Your task to perform on an android device: Open accessibility settings Image 0: 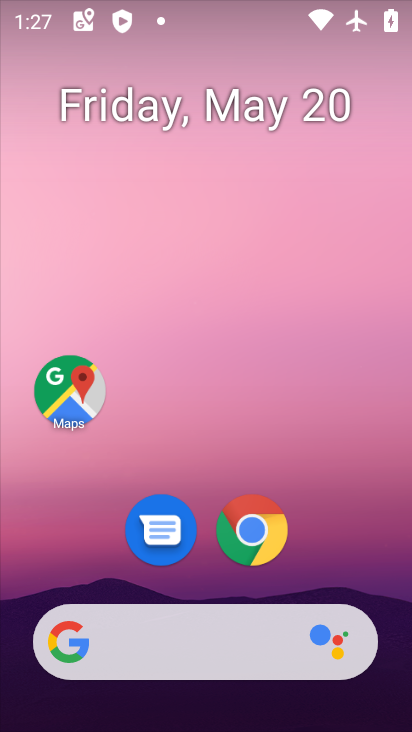
Step 0: drag from (193, 706) to (293, 129)
Your task to perform on an android device: Open accessibility settings Image 1: 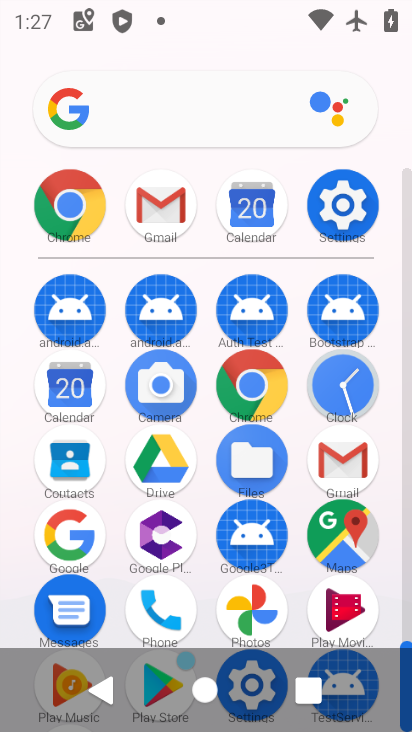
Step 1: click (365, 201)
Your task to perform on an android device: Open accessibility settings Image 2: 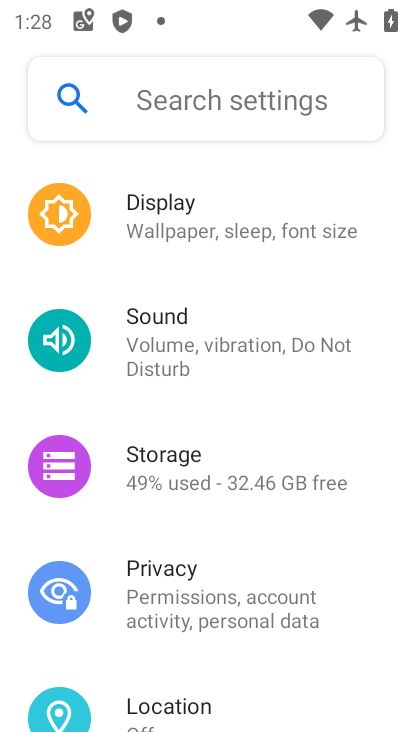
Step 2: drag from (238, 588) to (197, 80)
Your task to perform on an android device: Open accessibility settings Image 3: 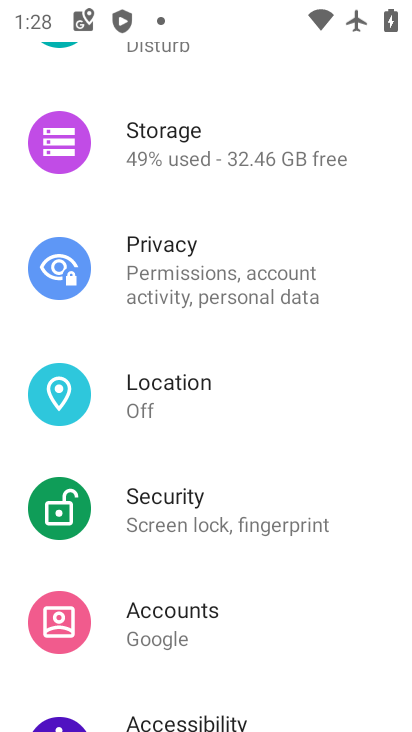
Step 3: drag from (247, 605) to (311, 125)
Your task to perform on an android device: Open accessibility settings Image 4: 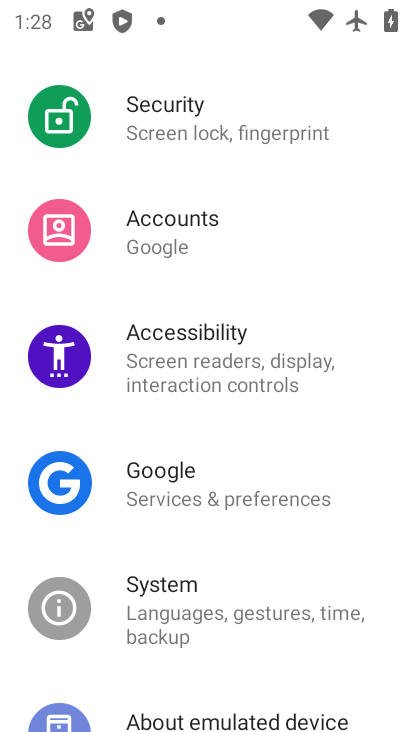
Step 4: drag from (278, 651) to (276, 111)
Your task to perform on an android device: Open accessibility settings Image 5: 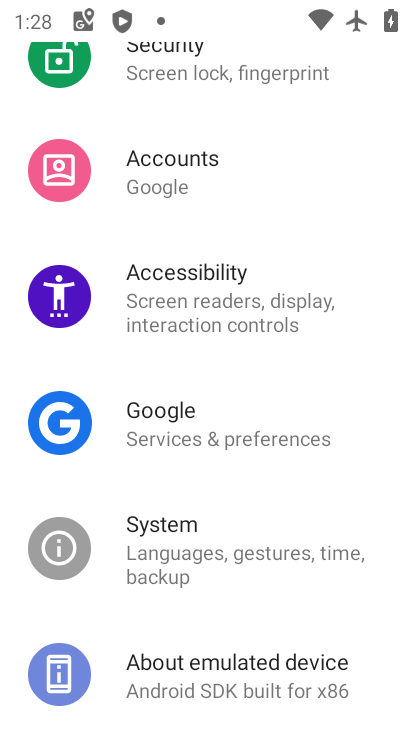
Step 5: click (246, 293)
Your task to perform on an android device: Open accessibility settings Image 6: 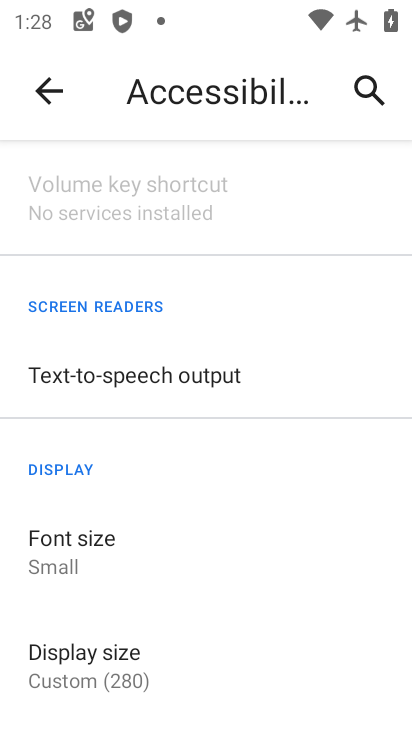
Step 6: task complete